Your task to perform on an android device: change the clock display to show seconds Image 0: 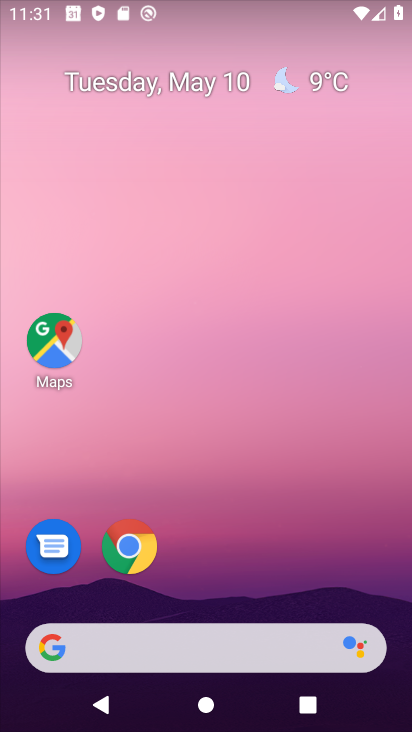
Step 0: drag from (208, 575) to (212, 245)
Your task to perform on an android device: change the clock display to show seconds Image 1: 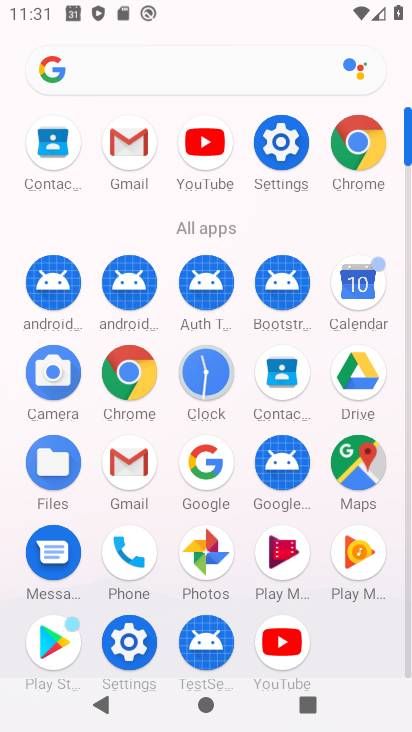
Step 1: click (204, 378)
Your task to perform on an android device: change the clock display to show seconds Image 2: 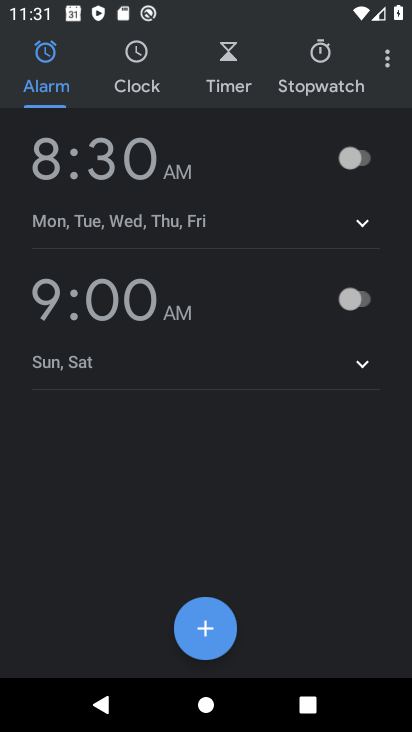
Step 2: click (389, 64)
Your task to perform on an android device: change the clock display to show seconds Image 3: 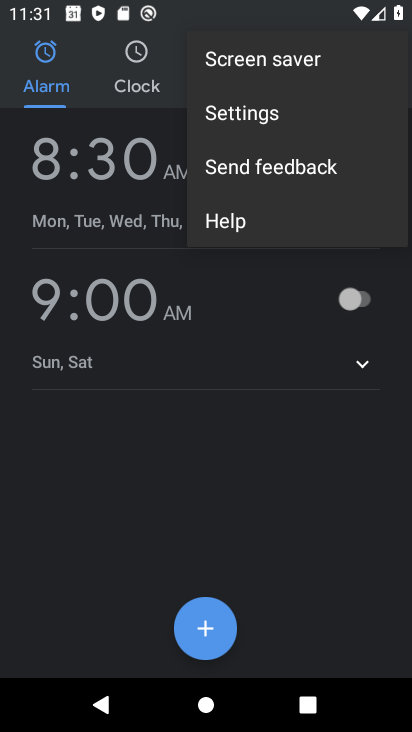
Step 3: click (311, 124)
Your task to perform on an android device: change the clock display to show seconds Image 4: 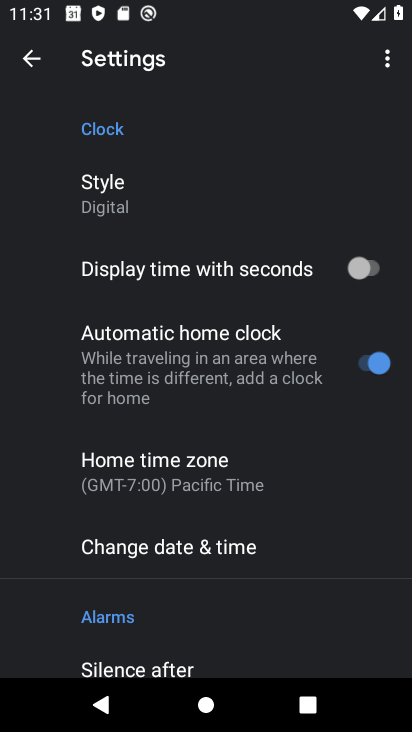
Step 4: click (376, 268)
Your task to perform on an android device: change the clock display to show seconds Image 5: 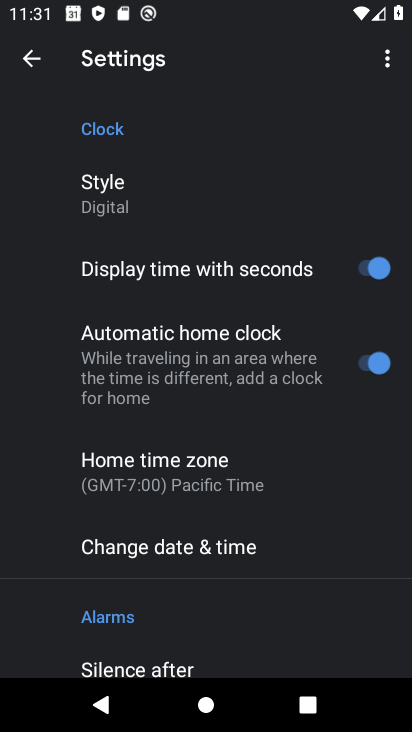
Step 5: task complete